Your task to perform on an android device: Go to CNN.com Image 0: 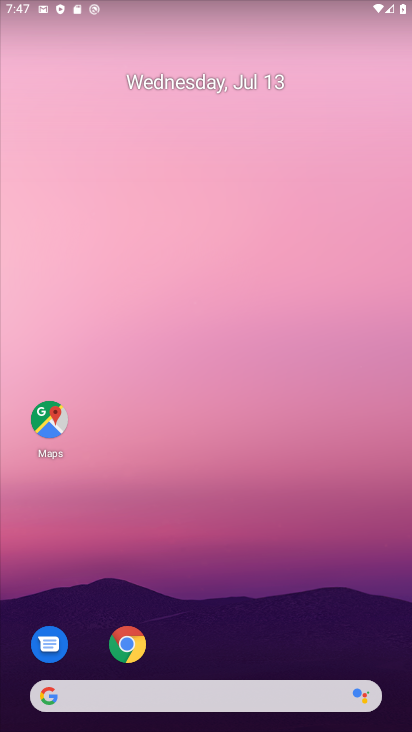
Step 0: click (134, 649)
Your task to perform on an android device: Go to CNN.com Image 1: 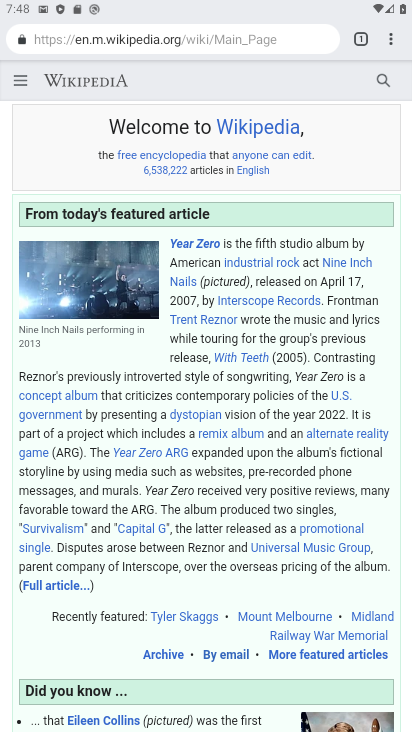
Step 1: click (289, 41)
Your task to perform on an android device: Go to CNN.com Image 2: 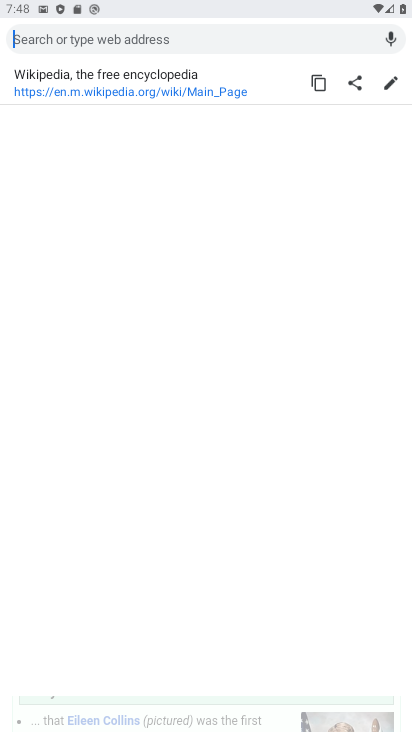
Step 2: click (289, 41)
Your task to perform on an android device: Go to CNN.com Image 3: 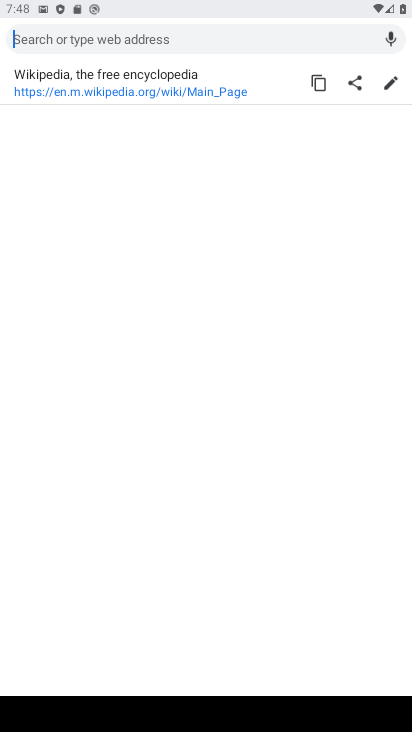
Step 3: type "CNN.com"
Your task to perform on an android device: Go to CNN.com Image 4: 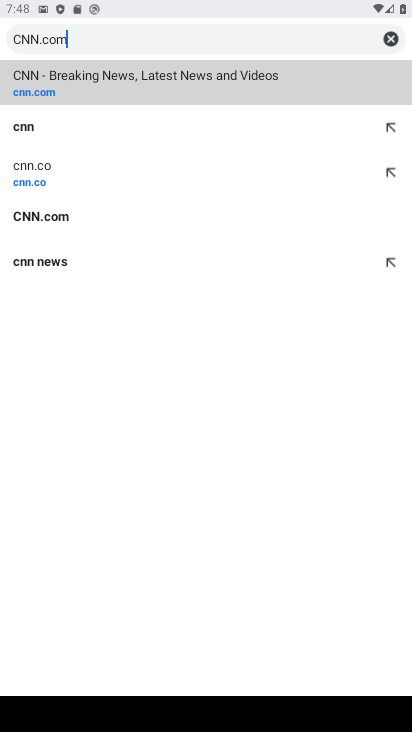
Step 4: type ""
Your task to perform on an android device: Go to CNN.com Image 5: 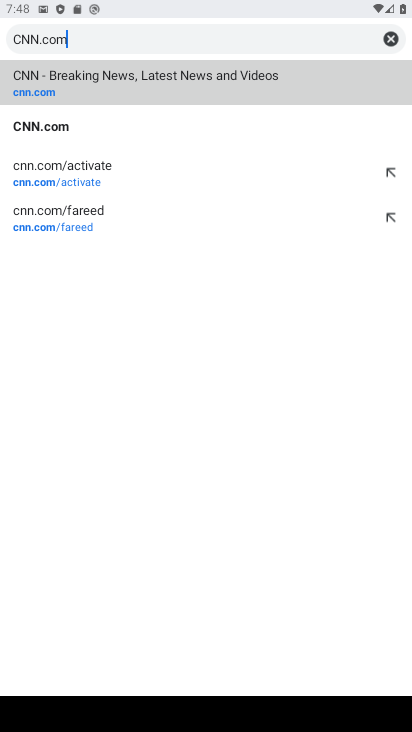
Step 5: click (168, 76)
Your task to perform on an android device: Go to CNN.com Image 6: 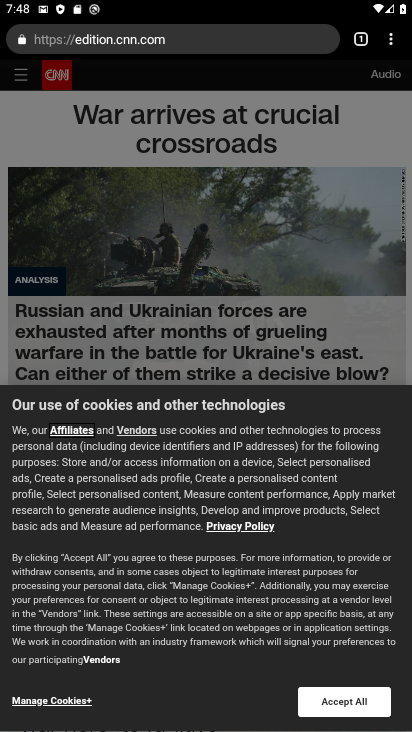
Step 6: task complete